Your task to perform on an android device: refresh tabs in the chrome app Image 0: 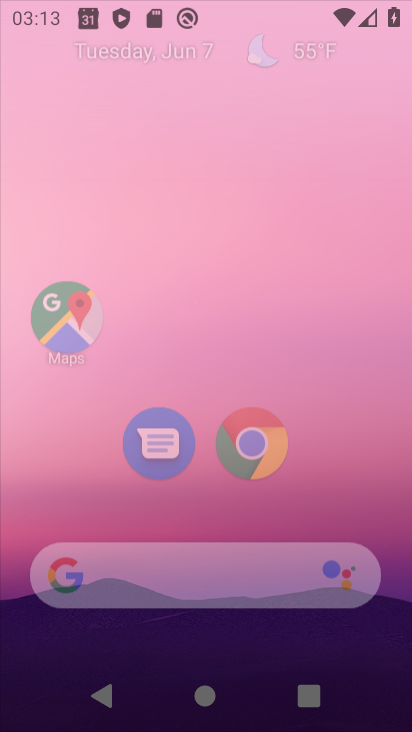
Step 0: drag from (290, 679) to (248, 326)
Your task to perform on an android device: refresh tabs in the chrome app Image 1: 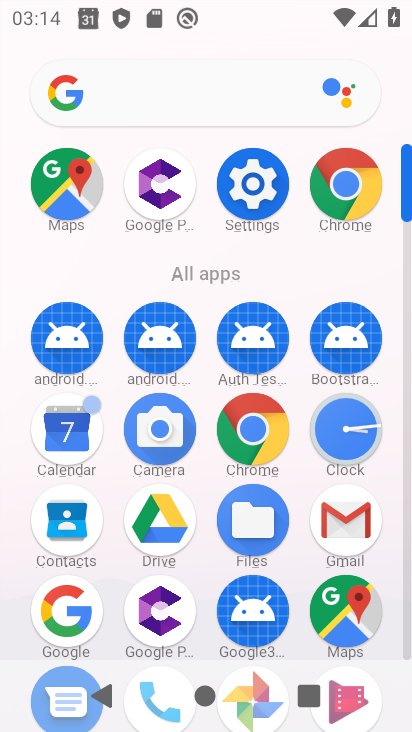
Step 1: click (340, 190)
Your task to perform on an android device: refresh tabs in the chrome app Image 2: 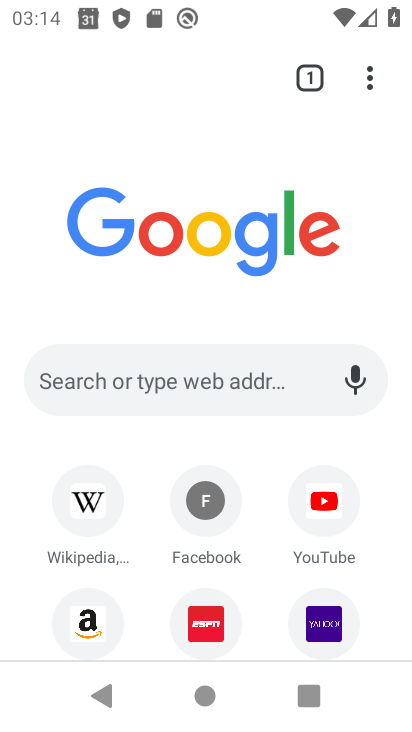
Step 2: click (370, 68)
Your task to perform on an android device: refresh tabs in the chrome app Image 3: 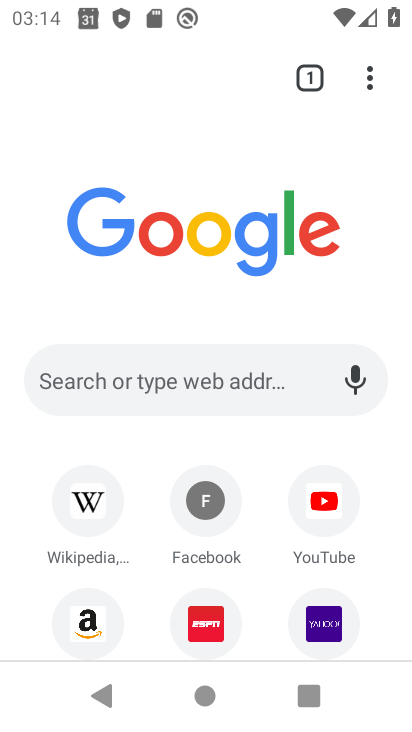
Step 3: click (374, 73)
Your task to perform on an android device: refresh tabs in the chrome app Image 4: 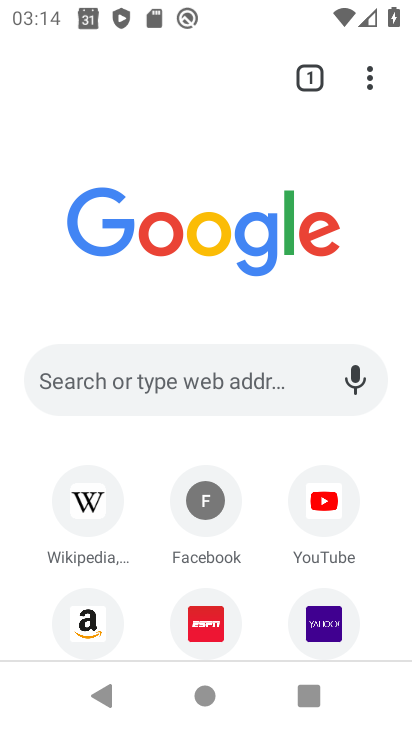
Step 4: click (370, 76)
Your task to perform on an android device: refresh tabs in the chrome app Image 5: 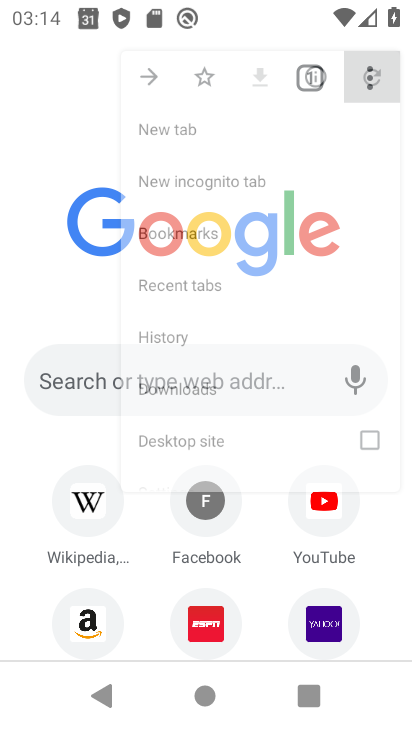
Step 5: click (354, 81)
Your task to perform on an android device: refresh tabs in the chrome app Image 6: 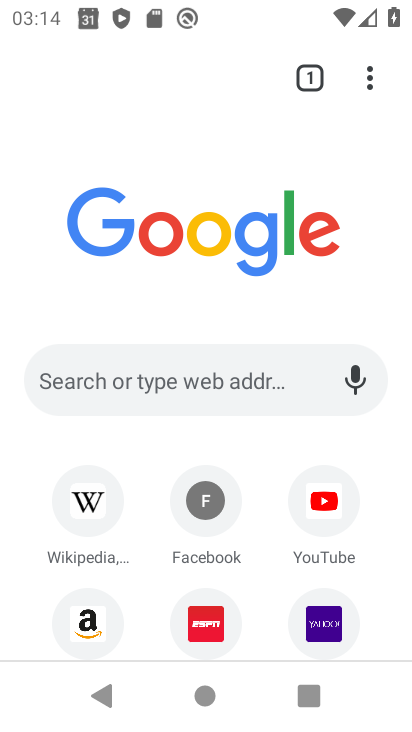
Step 6: click (355, 82)
Your task to perform on an android device: refresh tabs in the chrome app Image 7: 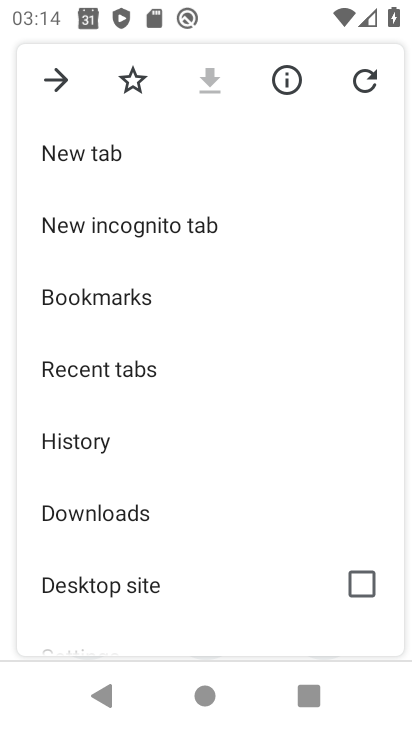
Step 7: task complete